Your task to perform on an android device: How big is a lion? Image 0: 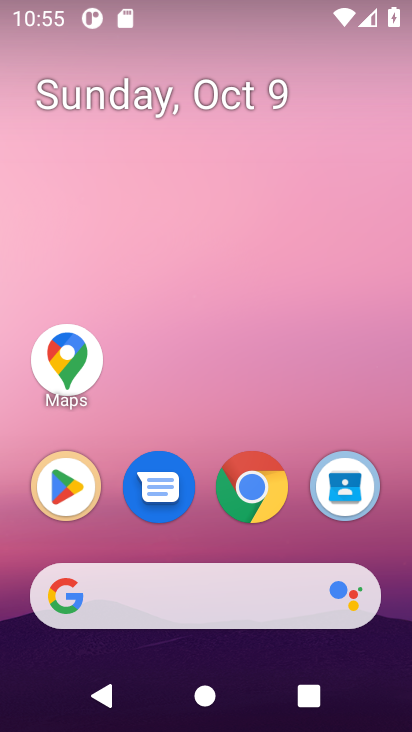
Step 0: click (258, 493)
Your task to perform on an android device: How big is a lion? Image 1: 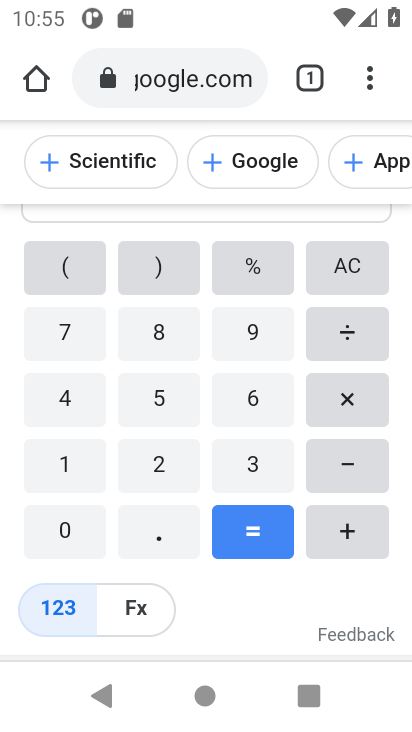
Step 1: click (187, 94)
Your task to perform on an android device: How big is a lion? Image 2: 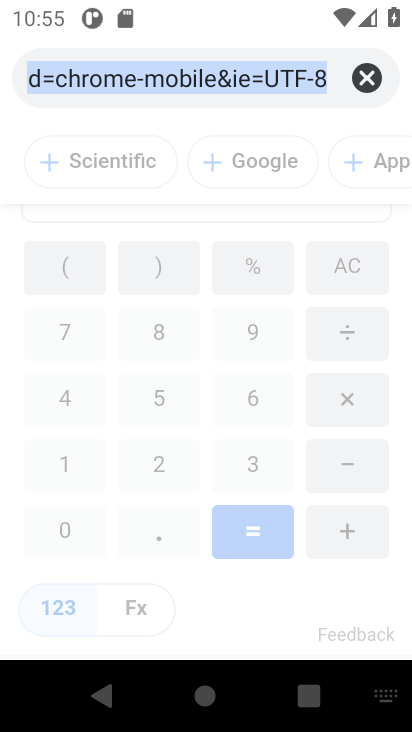
Step 2: type "how big is a lion"
Your task to perform on an android device: How big is a lion? Image 3: 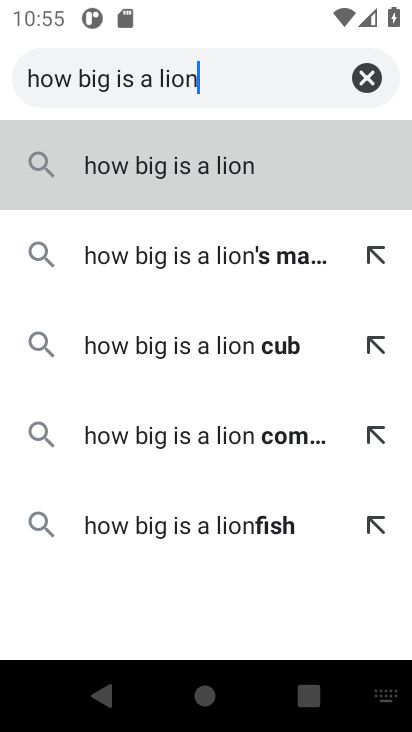
Step 3: type ""
Your task to perform on an android device: How big is a lion? Image 4: 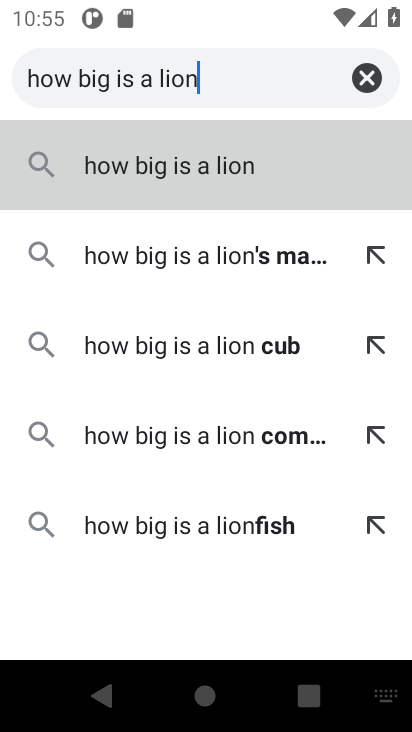
Step 4: press enter
Your task to perform on an android device: How big is a lion? Image 5: 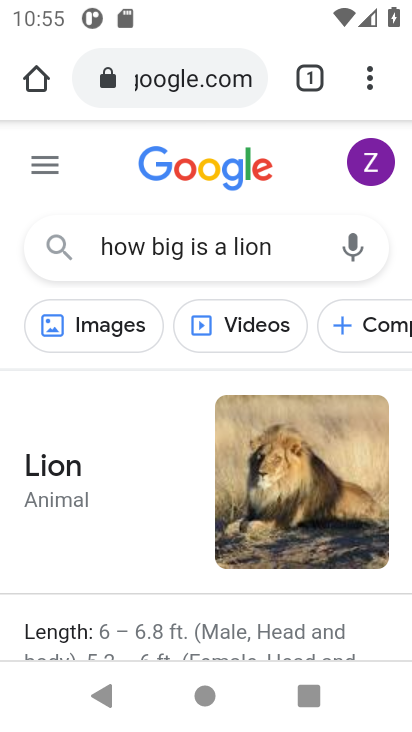
Step 5: task complete